Your task to perform on an android device: Search for sushi restaurants on Maps Image 0: 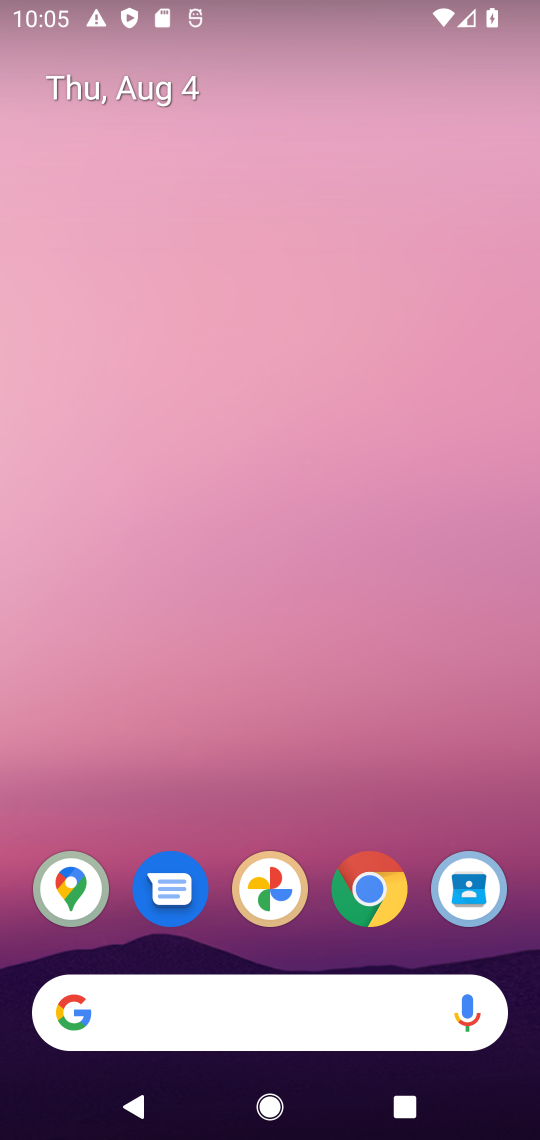
Step 0: press home button
Your task to perform on an android device: Search for sushi restaurants on Maps Image 1: 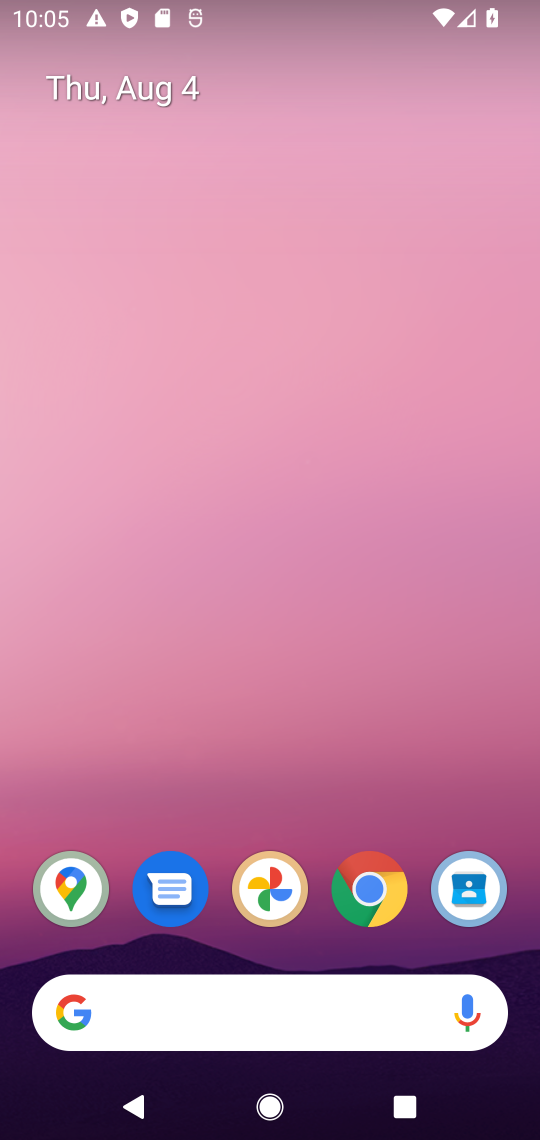
Step 1: drag from (317, 801) to (308, 327)
Your task to perform on an android device: Search for sushi restaurants on Maps Image 2: 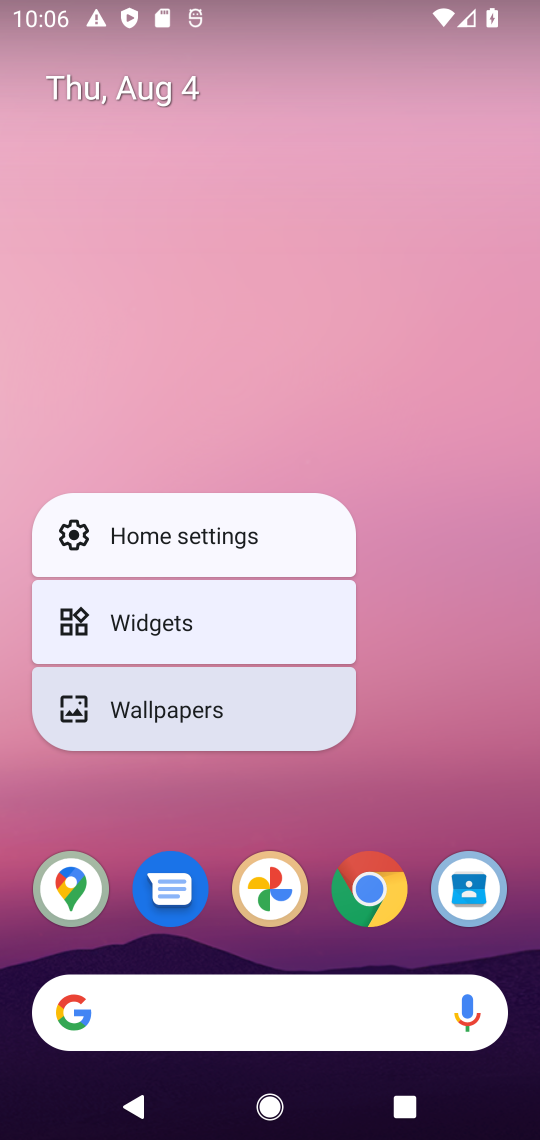
Step 2: click (429, 524)
Your task to perform on an android device: Search for sushi restaurants on Maps Image 3: 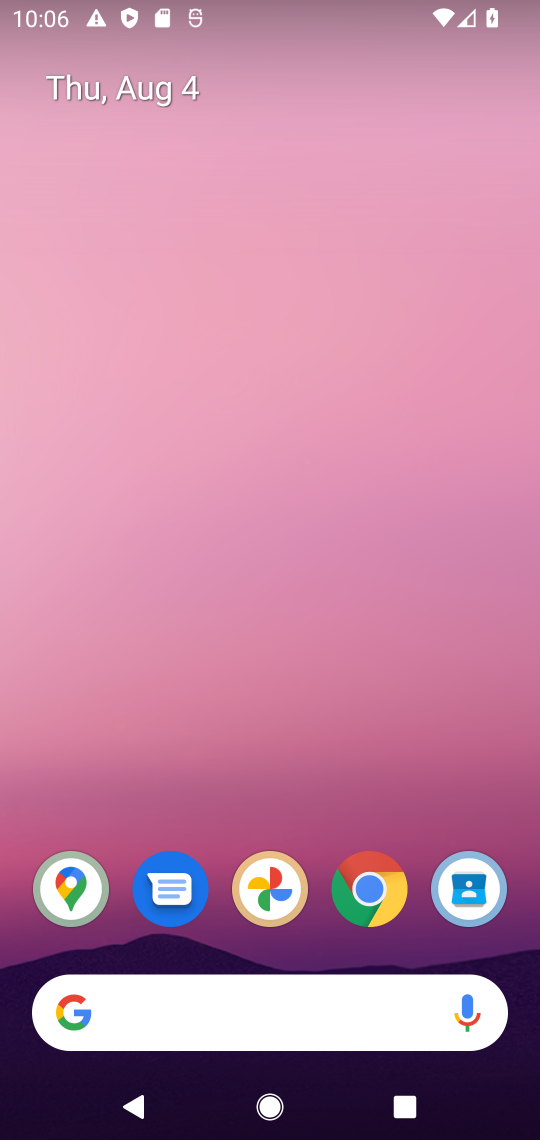
Step 3: drag from (373, 775) to (381, 251)
Your task to perform on an android device: Search for sushi restaurants on Maps Image 4: 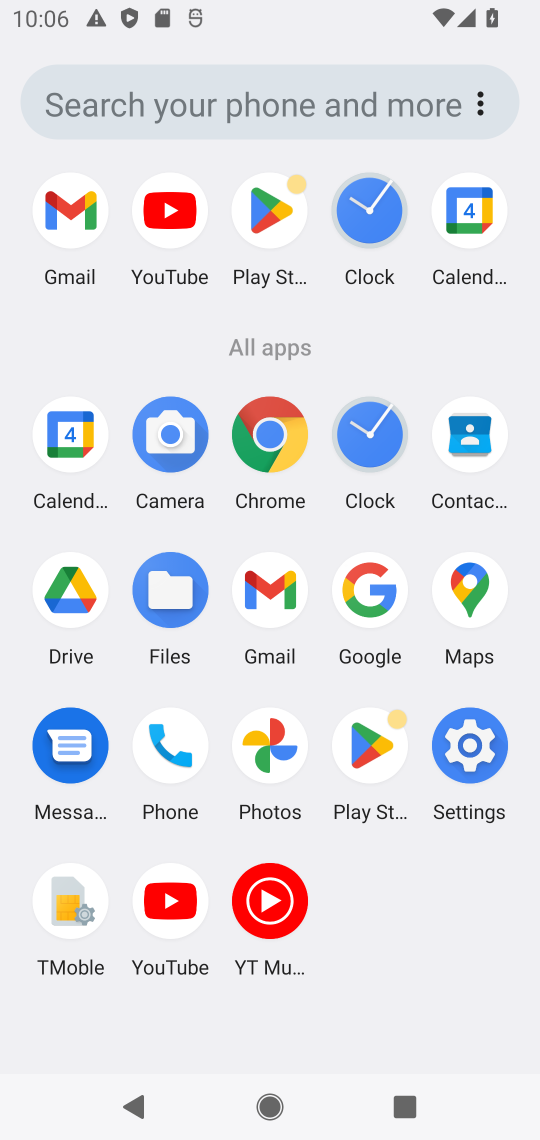
Step 4: click (482, 583)
Your task to perform on an android device: Search for sushi restaurants on Maps Image 5: 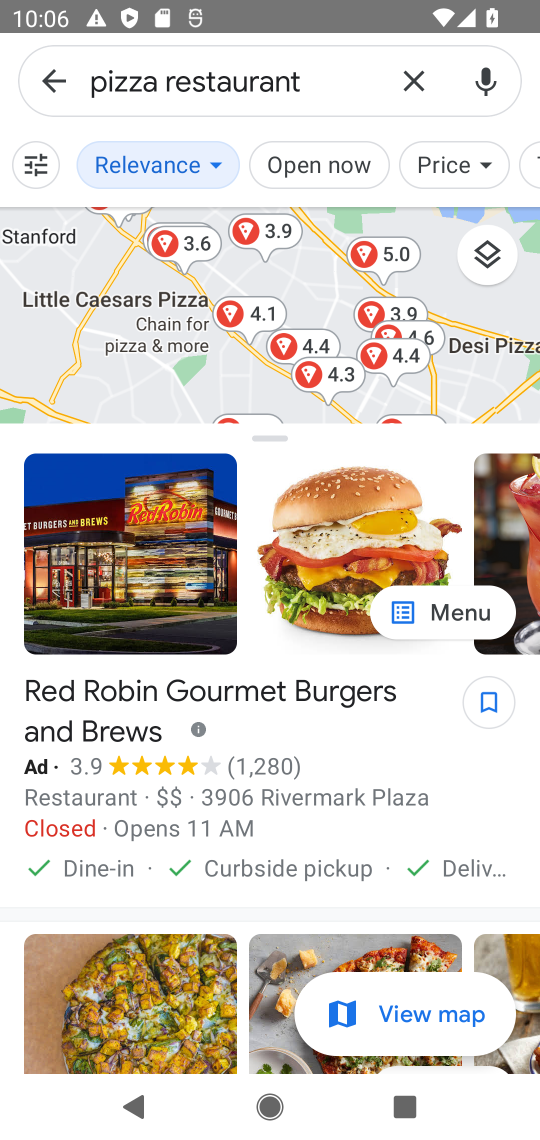
Step 5: click (413, 80)
Your task to perform on an android device: Search for sushi restaurants on Maps Image 6: 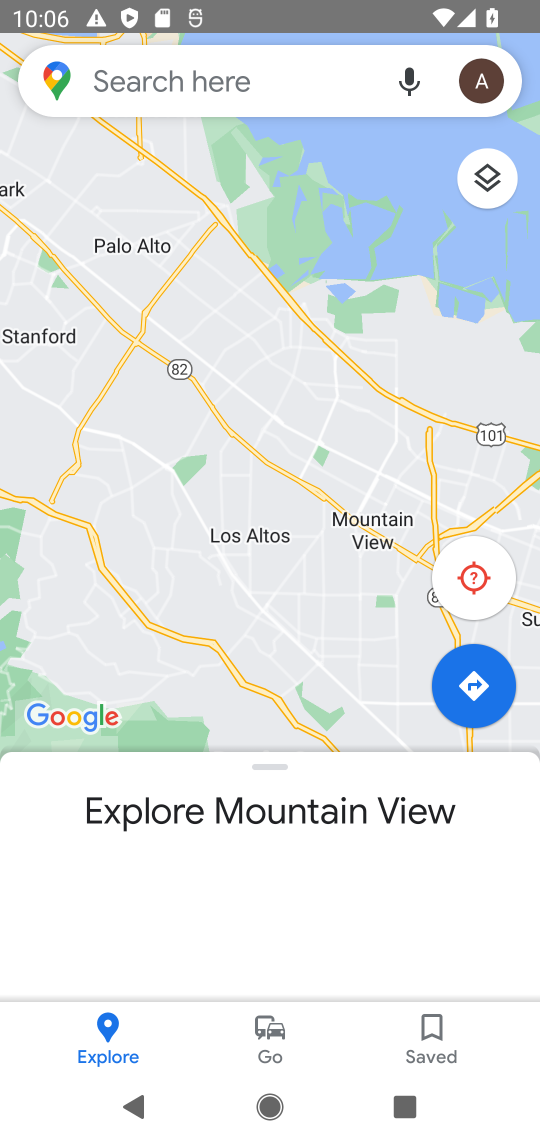
Step 6: click (272, 84)
Your task to perform on an android device: Search for sushi restaurants on Maps Image 7: 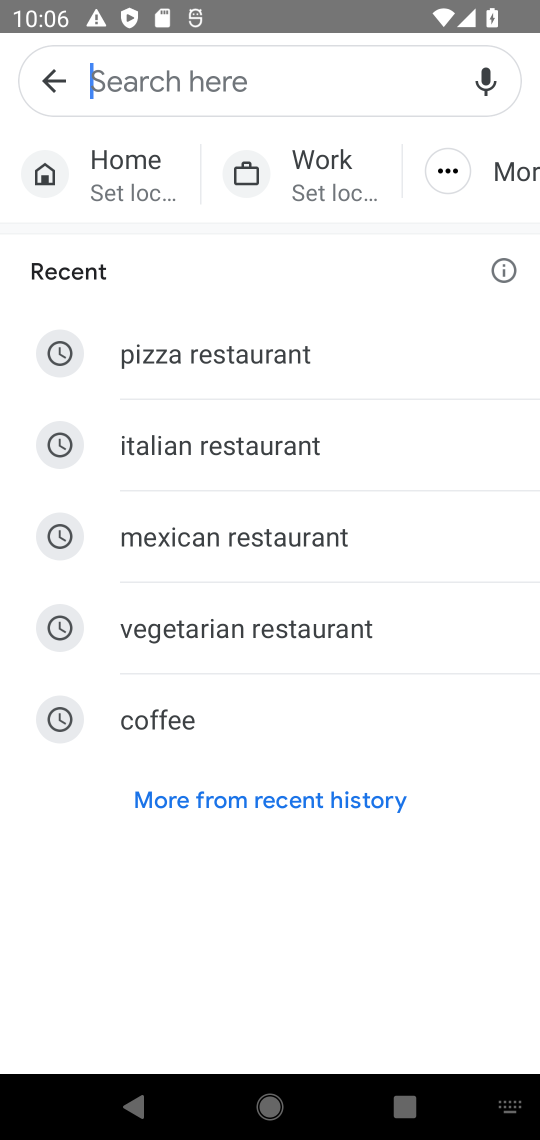
Step 7: type "sushi restaurants"
Your task to perform on an android device: Search for sushi restaurants on Maps Image 8: 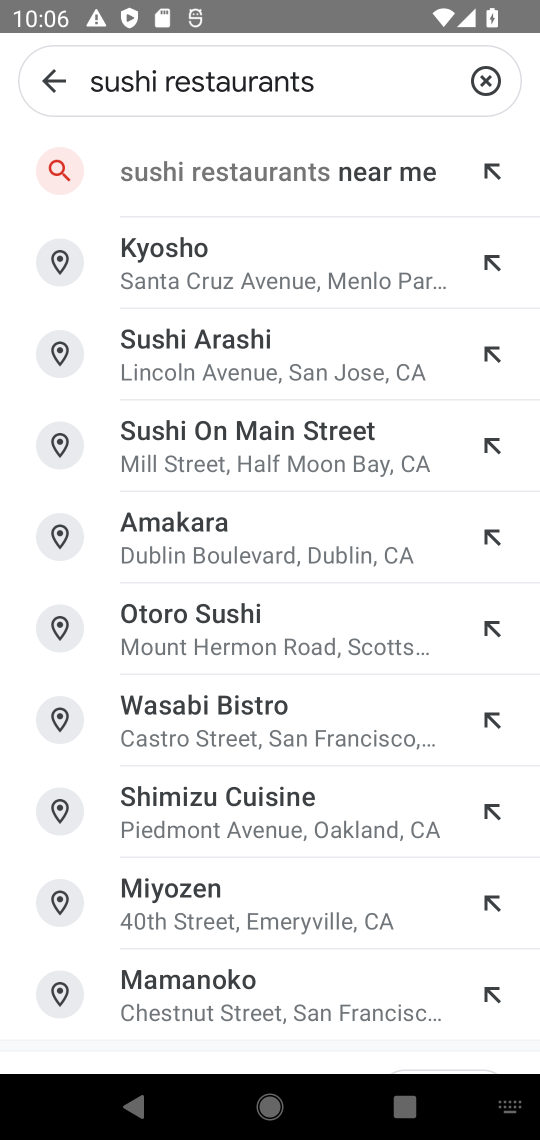
Step 8: click (331, 174)
Your task to perform on an android device: Search for sushi restaurants on Maps Image 9: 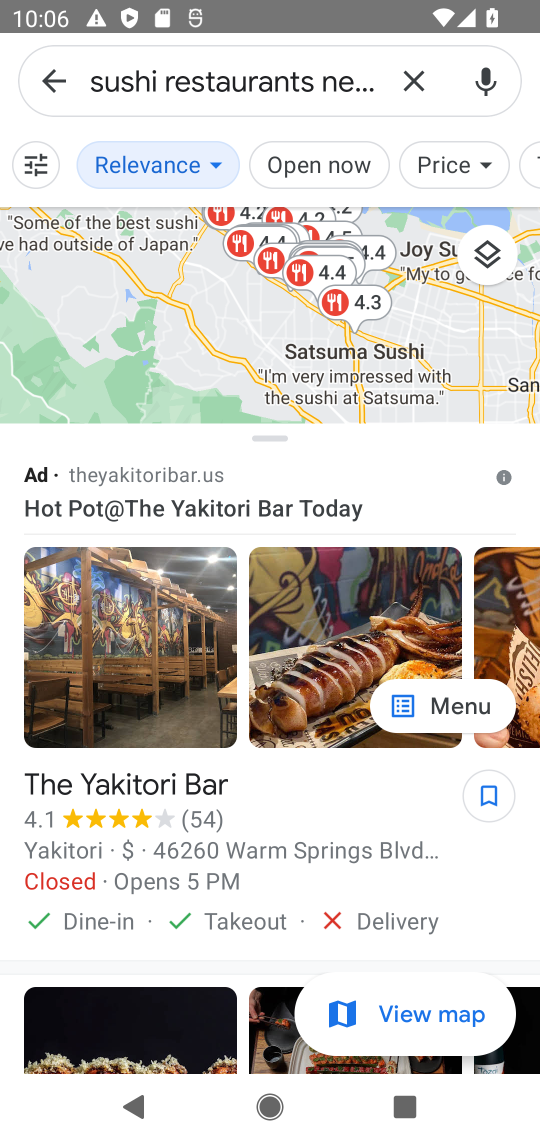
Step 9: task complete